Your task to perform on an android device: install app "Google News" Image 0: 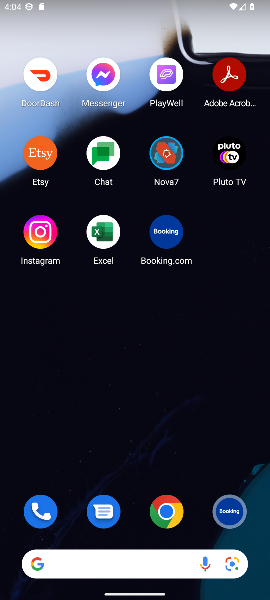
Step 0: drag from (27, 587) to (154, 213)
Your task to perform on an android device: install app "Google News" Image 1: 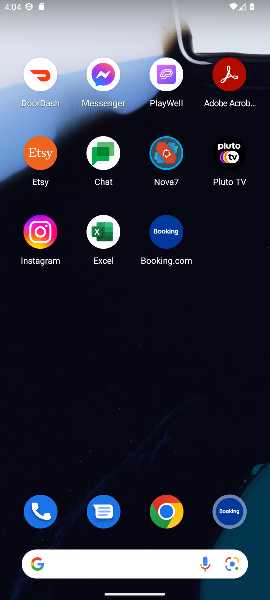
Step 1: drag from (3, 508) to (245, 62)
Your task to perform on an android device: install app "Google News" Image 2: 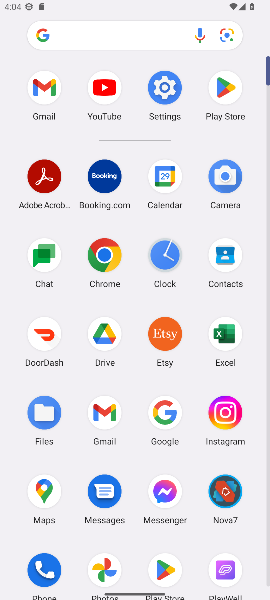
Step 2: click (157, 584)
Your task to perform on an android device: install app "Google News" Image 3: 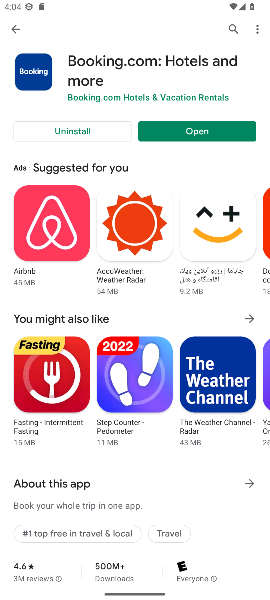
Step 3: click (17, 18)
Your task to perform on an android device: install app "Google News" Image 4: 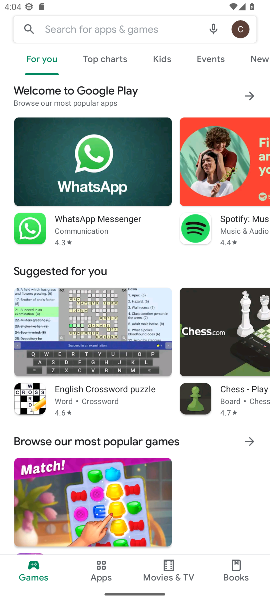
Step 4: click (70, 23)
Your task to perform on an android device: install app "Google News" Image 5: 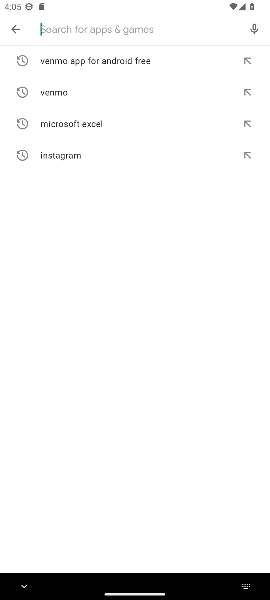
Step 5: type "Google News"
Your task to perform on an android device: install app "Google News" Image 6: 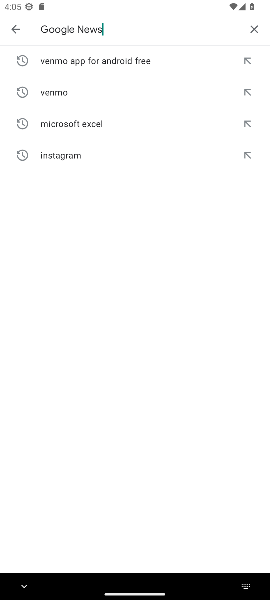
Step 6: type ""
Your task to perform on an android device: install app "Google News" Image 7: 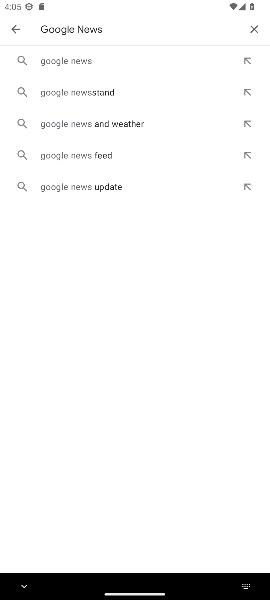
Step 7: click (56, 59)
Your task to perform on an android device: install app "Google News" Image 8: 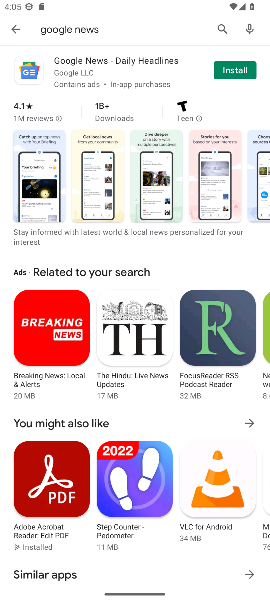
Step 8: click (233, 69)
Your task to perform on an android device: install app "Google News" Image 9: 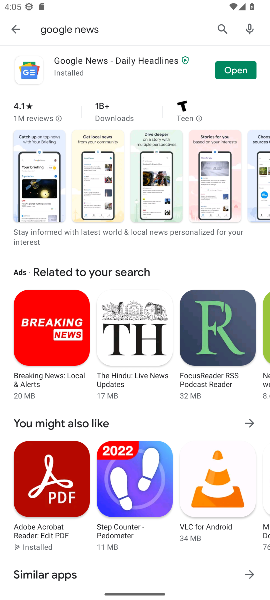
Step 9: click (245, 75)
Your task to perform on an android device: install app "Google News" Image 10: 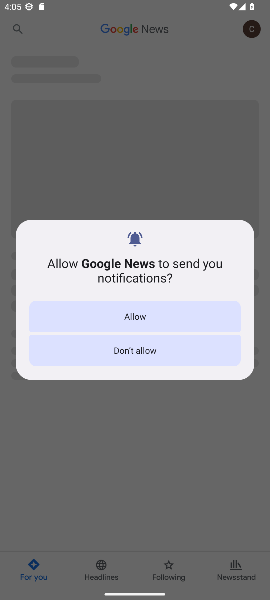
Step 10: task complete